Your task to perform on an android device: install app "Google Sheets" Image 0: 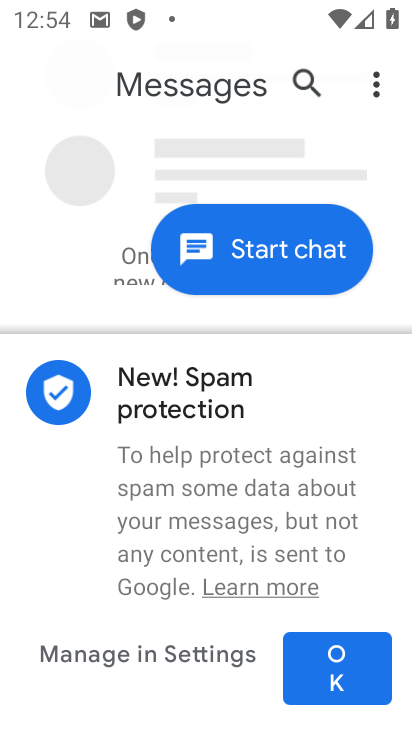
Step 0: press back button
Your task to perform on an android device: install app "Google Sheets" Image 1: 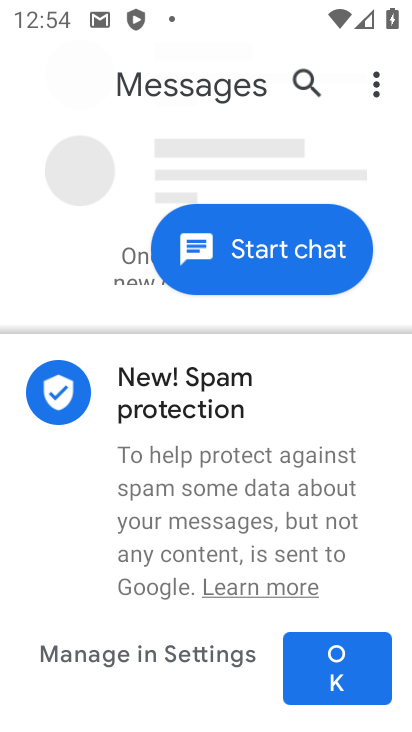
Step 1: press back button
Your task to perform on an android device: install app "Google Sheets" Image 2: 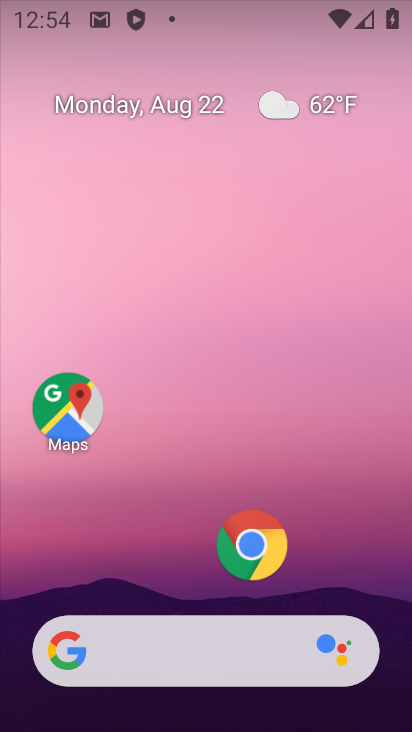
Step 2: drag from (130, 579) to (239, 22)
Your task to perform on an android device: install app "Google Sheets" Image 3: 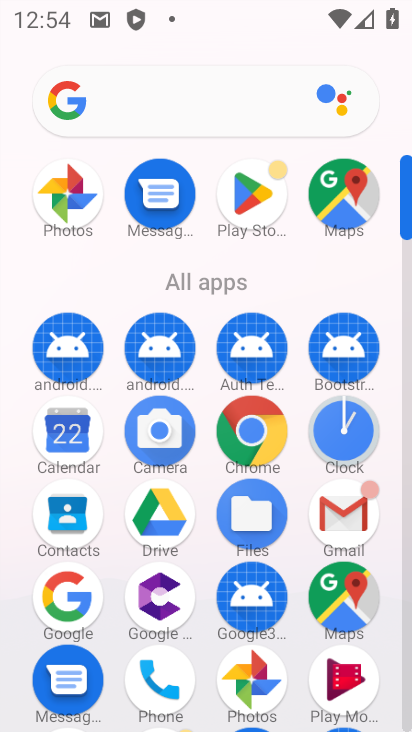
Step 3: click (263, 202)
Your task to perform on an android device: install app "Google Sheets" Image 4: 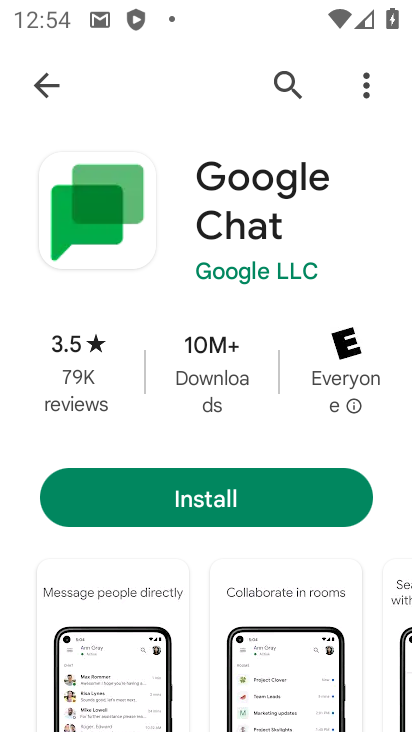
Step 4: click (280, 81)
Your task to perform on an android device: install app "Google Sheets" Image 5: 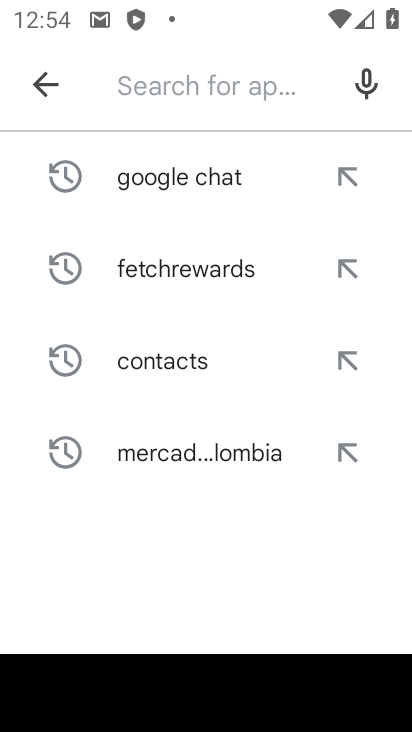
Step 5: click (147, 70)
Your task to perform on an android device: install app "Google Sheets" Image 6: 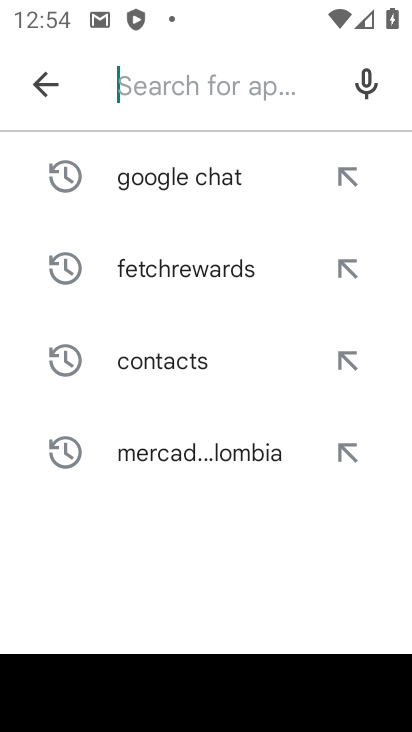
Step 6: type "Google Sheets"
Your task to perform on an android device: install app "Google Sheets" Image 7: 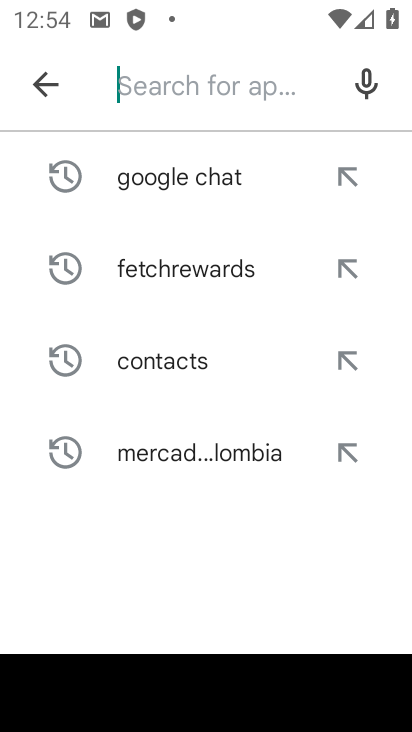
Step 7: click (185, 479)
Your task to perform on an android device: install app "Google Sheets" Image 8: 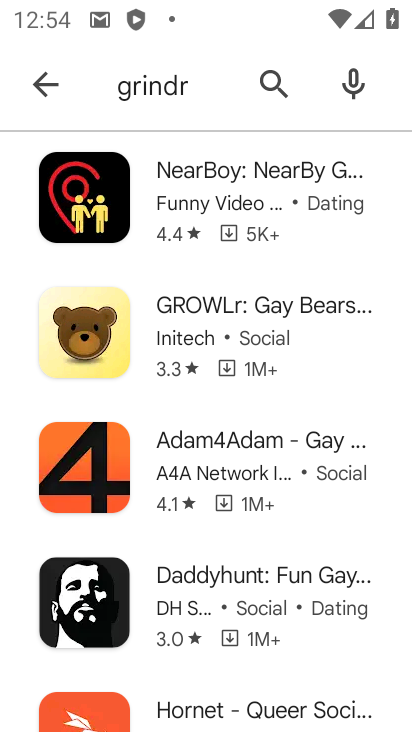
Step 8: click (254, 68)
Your task to perform on an android device: install app "Google Sheets" Image 9: 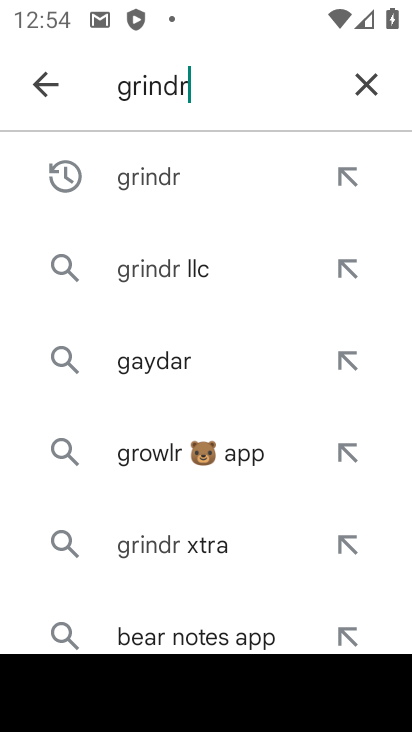
Step 9: click (360, 78)
Your task to perform on an android device: install app "Google Sheets" Image 10: 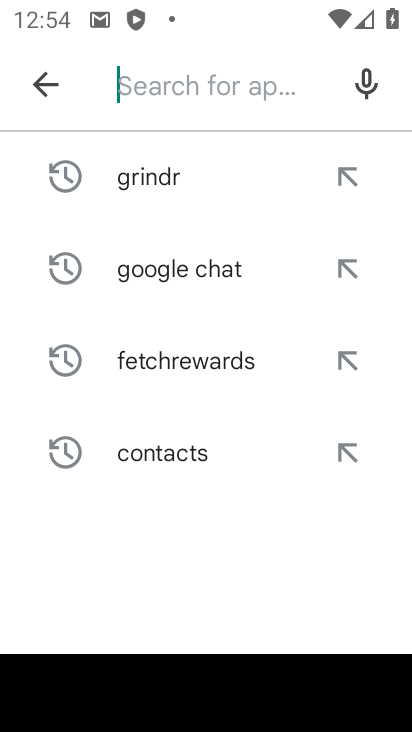
Step 10: click (153, 81)
Your task to perform on an android device: install app "Google Sheets" Image 11: 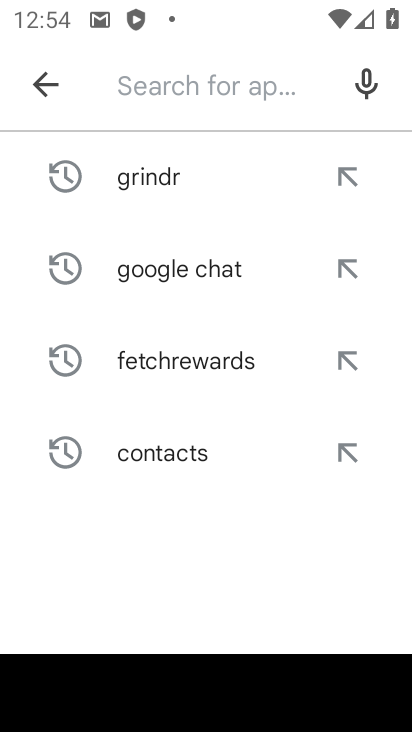
Step 11: type "Google Sheets"
Your task to perform on an android device: install app "Google Sheets" Image 12: 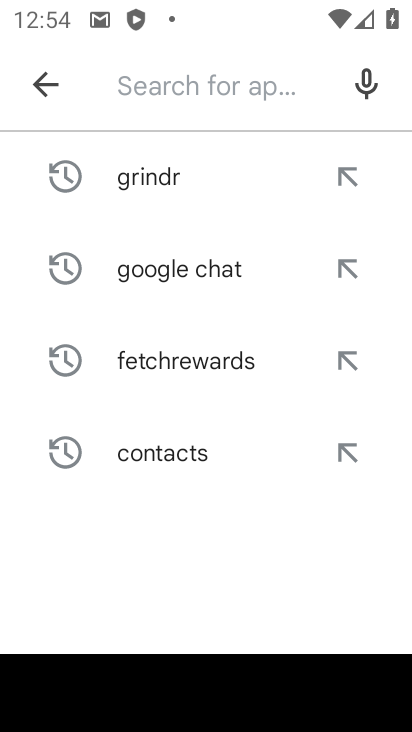
Step 12: click (159, 574)
Your task to perform on an android device: install app "Google Sheets" Image 13: 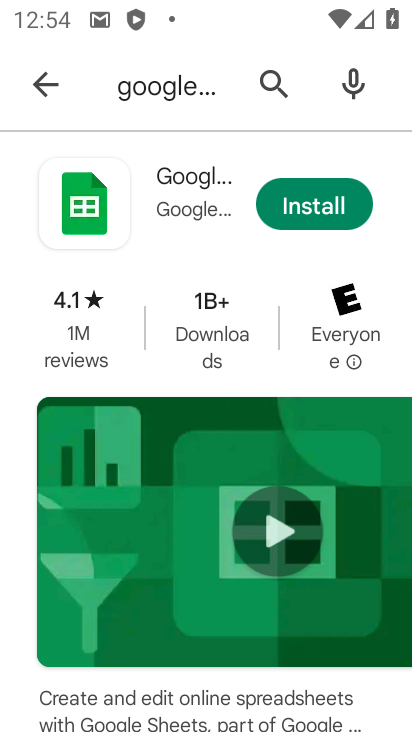
Step 13: drag from (183, 628) to (228, 478)
Your task to perform on an android device: install app "Google Sheets" Image 14: 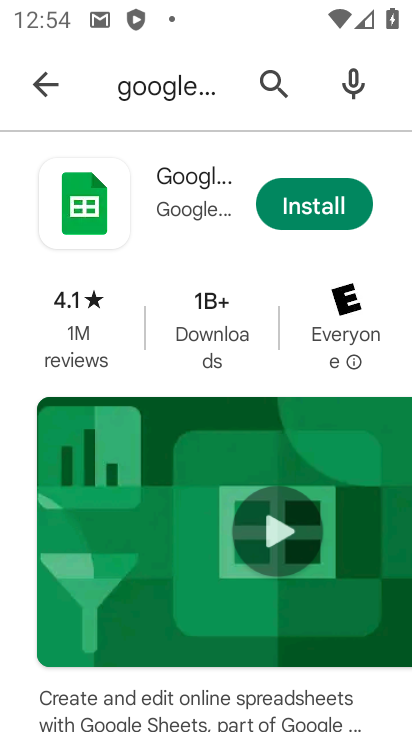
Step 14: click (287, 208)
Your task to perform on an android device: install app "Google Sheets" Image 15: 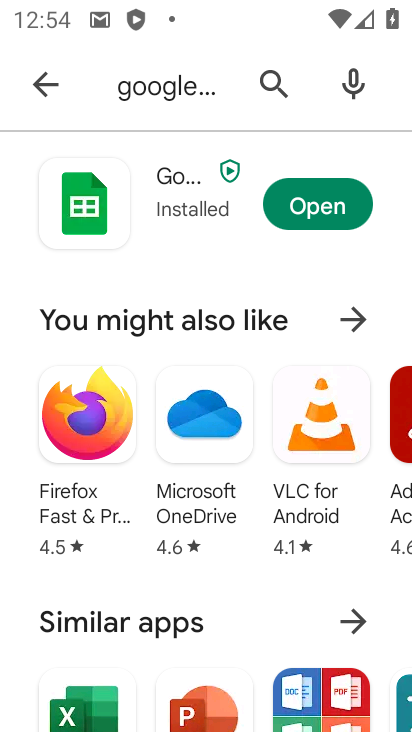
Step 15: task complete